Your task to perform on an android device: Open Google Chrome and click the shortcut for Amazon.com Image 0: 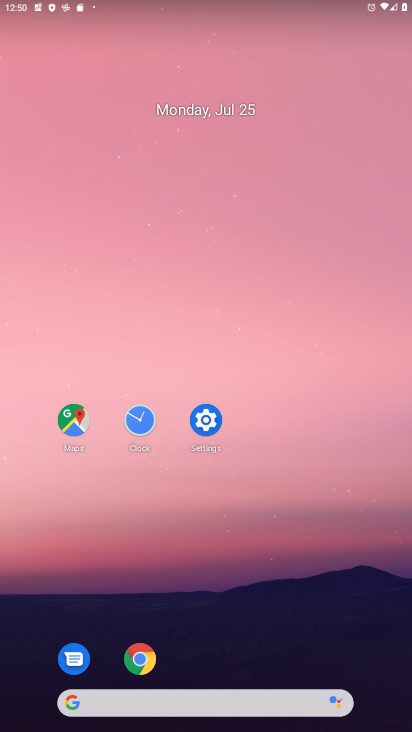
Step 0: click (137, 661)
Your task to perform on an android device: Open Google Chrome and click the shortcut for Amazon.com Image 1: 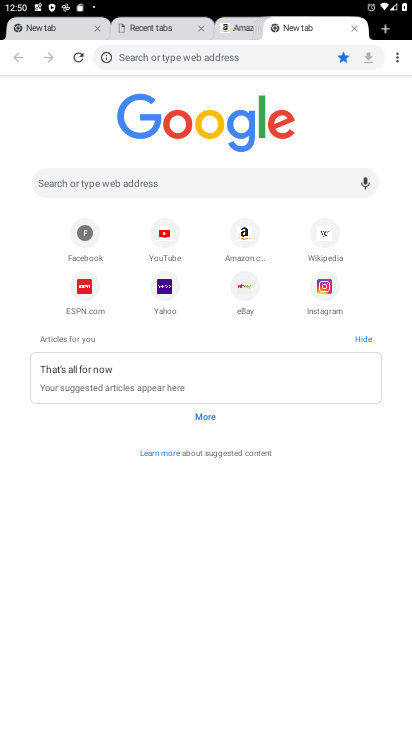
Step 1: click (250, 227)
Your task to perform on an android device: Open Google Chrome and click the shortcut for Amazon.com Image 2: 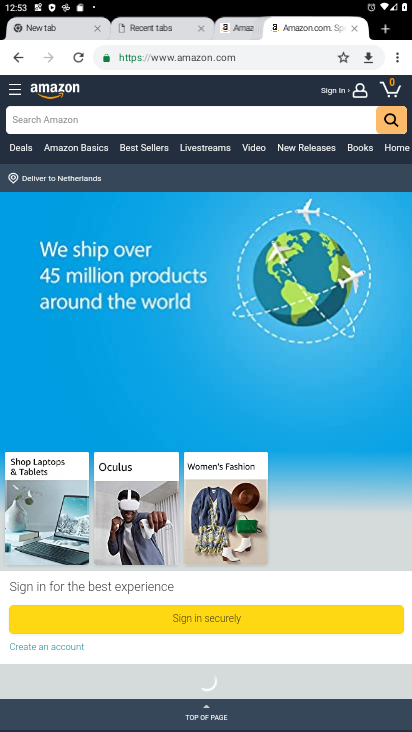
Step 2: task complete